Your task to perform on an android device: turn vacation reply on in the gmail app Image 0: 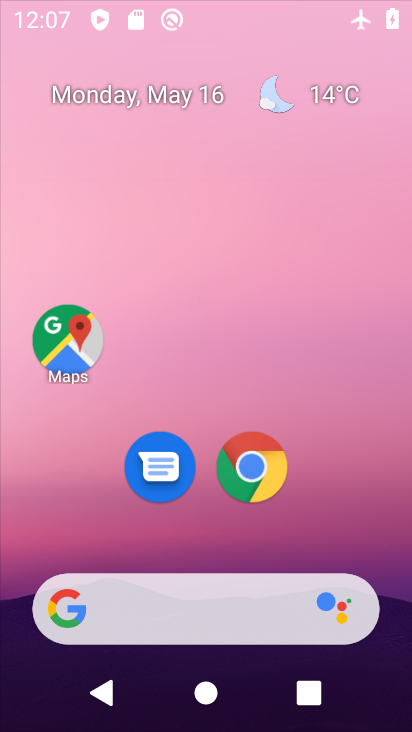
Step 0: drag from (328, 440) to (345, 251)
Your task to perform on an android device: turn vacation reply on in the gmail app Image 1: 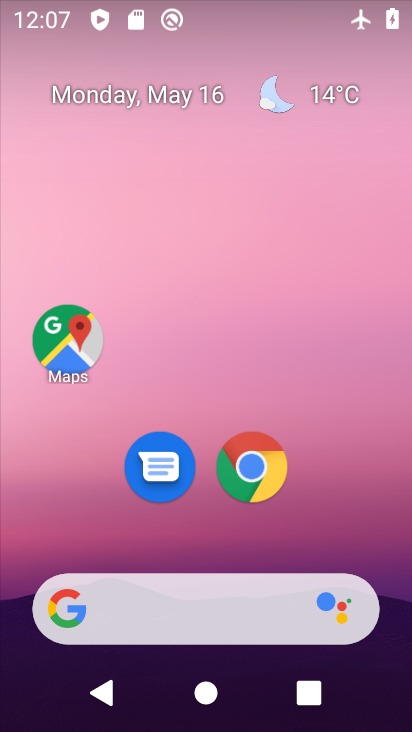
Step 1: drag from (323, 506) to (299, 244)
Your task to perform on an android device: turn vacation reply on in the gmail app Image 2: 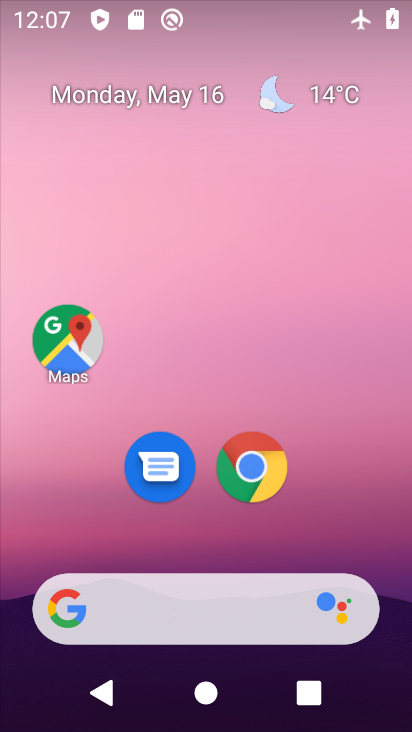
Step 2: drag from (322, 469) to (322, 217)
Your task to perform on an android device: turn vacation reply on in the gmail app Image 3: 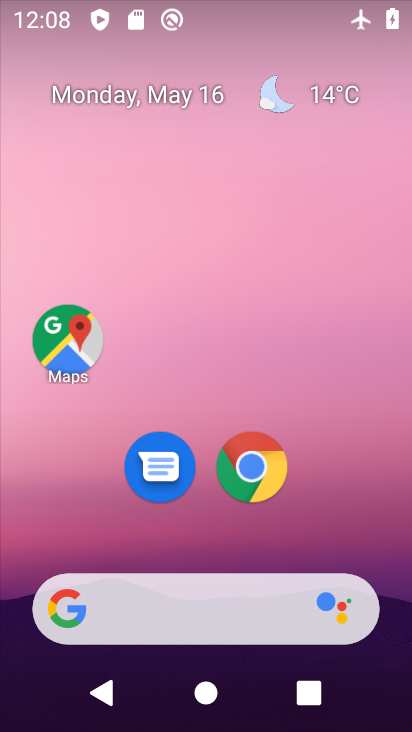
Step 3: drag from (320, 517) to (300, 192)
Your task to perform on an android device: turn vacation reply on in the gmail app Image 4: 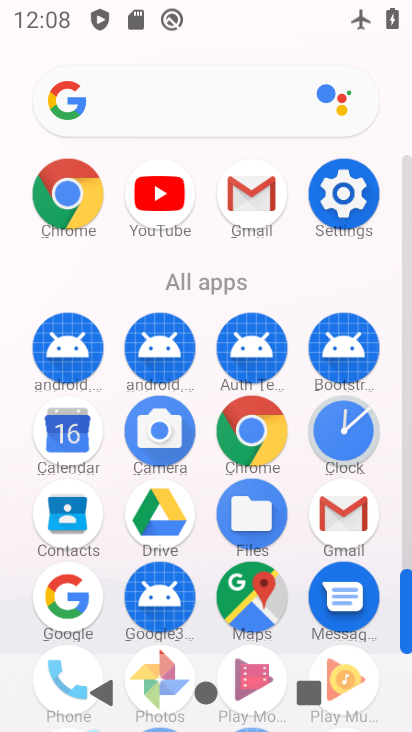
Step 4: click (328, 512)
Your task to perform on an android device: turn vacation reply on in the gmail app Image 5: 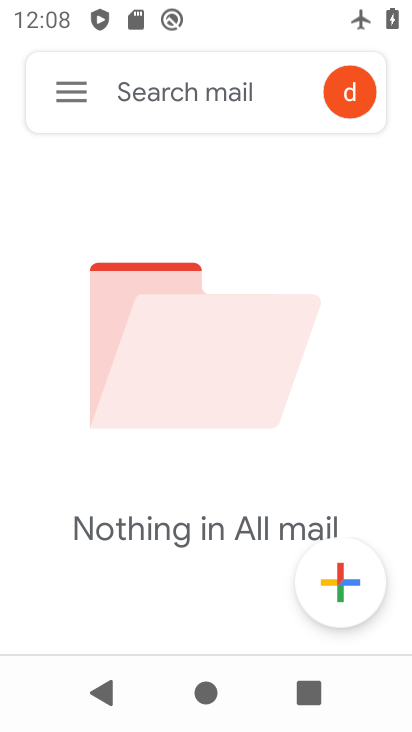
Step 5: click (57, 94)
Your task to perform on an android device: turn vacation reply on in the gmail app Image 6: 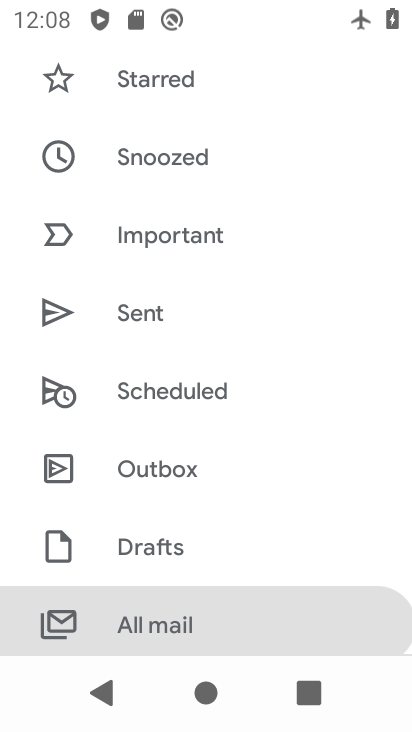
Step 6: drag from (188, 578) to (255, 93)
Your task to perform on an android device: turn vacation reply on in the gmail app Image 7: 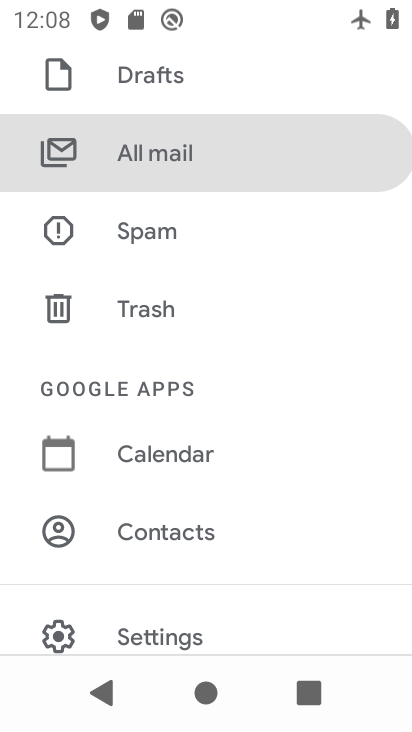
Step 7: drag from (167, 581) to (207, 342)
Your task to perform on an android device: turn vacation reply on in the gmail app Image 8: 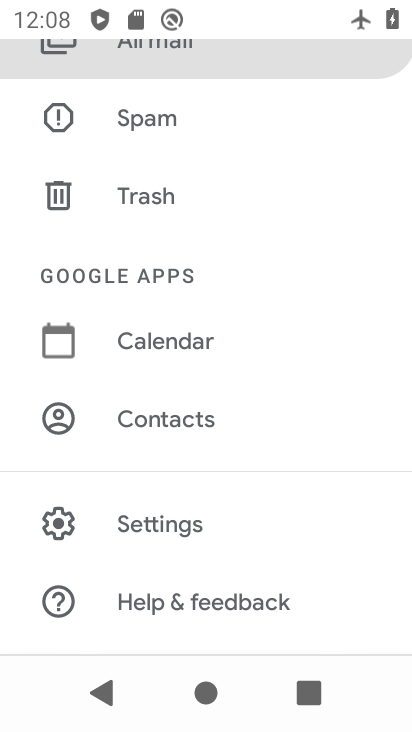
Step 8: click (156, 530)
Your task to perform on an android device: turn vacation reply on in the gmail app Image 9: 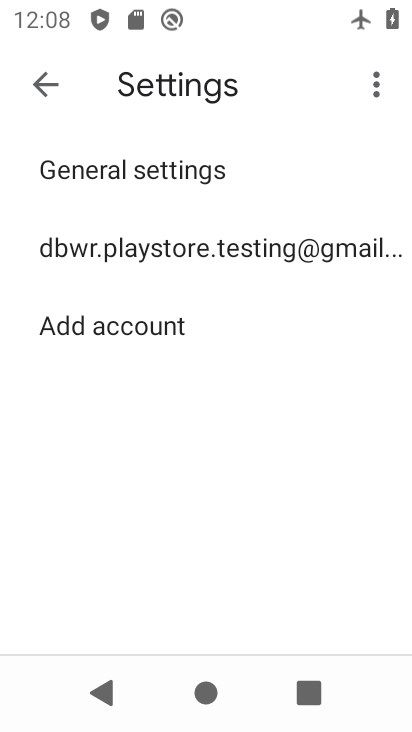
Step 9: click (168, 244)
Your task to perform on an android device: turn vacation reply on in the gmail app Image 10: 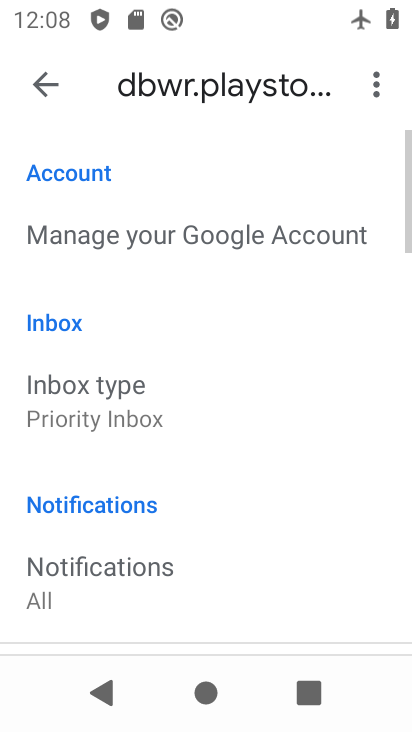
Step 10: drag from (223, 578) to (247, 153)
Your task to perform on an android device: turn vacation reply on in the gmail app Image 11: 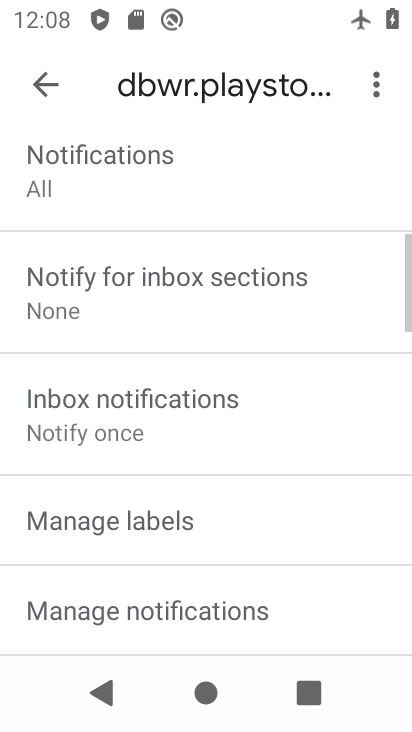
Step 11: drag from (211, 513) to (266, 153)
Your task to perform on an android device: turn vacation reply on in the gmail app Image 12: 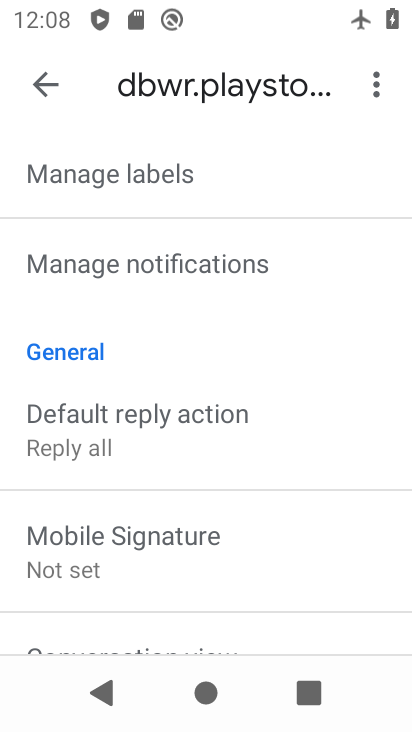
Step 12: drag from (235, 584) to (271, 117)
Your task to perform on an android device: turn vacation reply on in the gmail app Image 13: 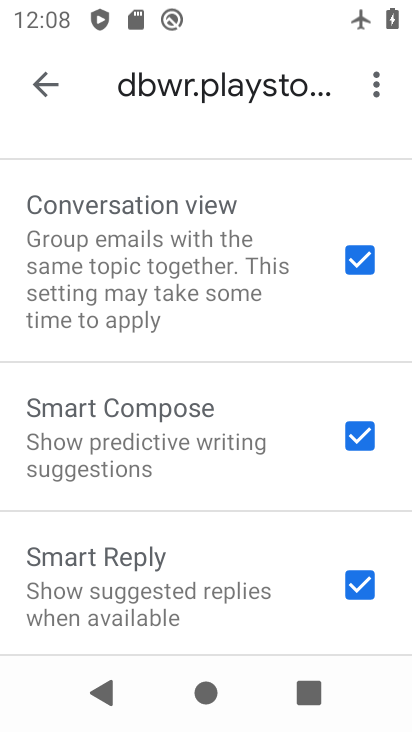
Step 13: drag from (204, 491) to (248, 71)
Your task to perform on an android device: turn vacation reply on in the gmail app Image 14: 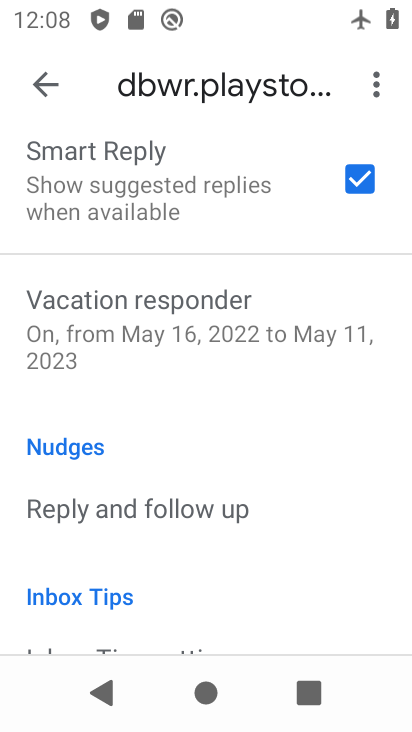
Step 14: click (193, 314)
Your task to perform on an android device: turn vacation reply on in the gmail app Image 15: 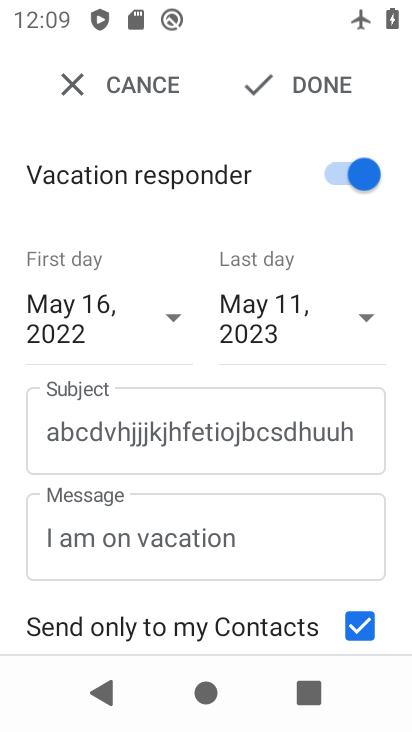
Step 15: task complete